Your task to perform on an android device: change the clock style Image 0: 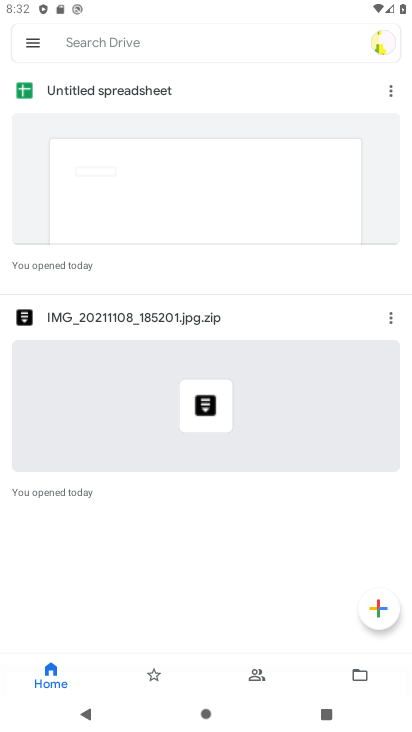
Step 0: press home button
Your task to perform on an android device: change the clock style Image 1: 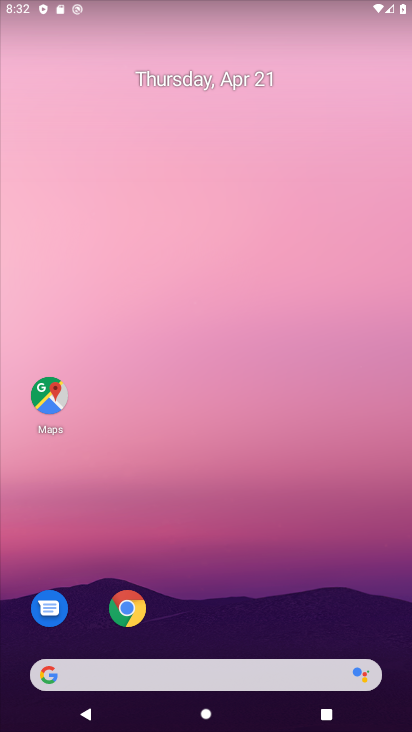
Step 1: drag from (291, 579) to (73, 0)
Your task to perform on an android device: change the clock style Image 2: 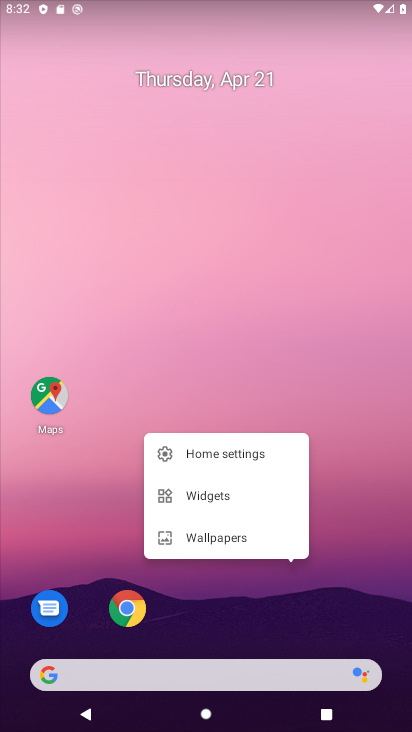
Step 2: click (338, 496)
Your task to perform on an android device: change the clock style Image 3: 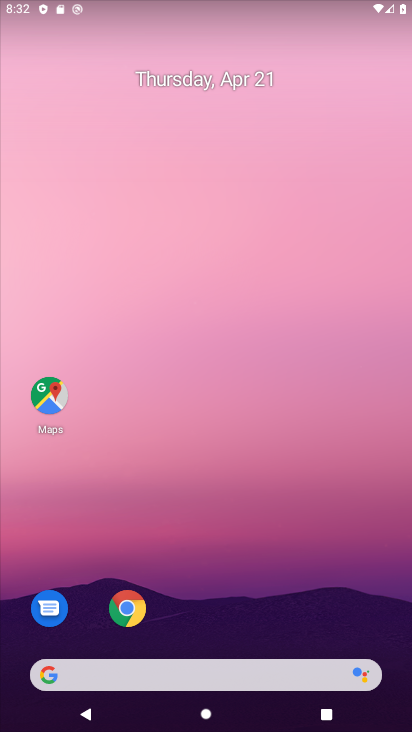
Step 3: drag from (338, 496) to (224, 2)
Your task to perform on an android device: change the clock style Image 4: 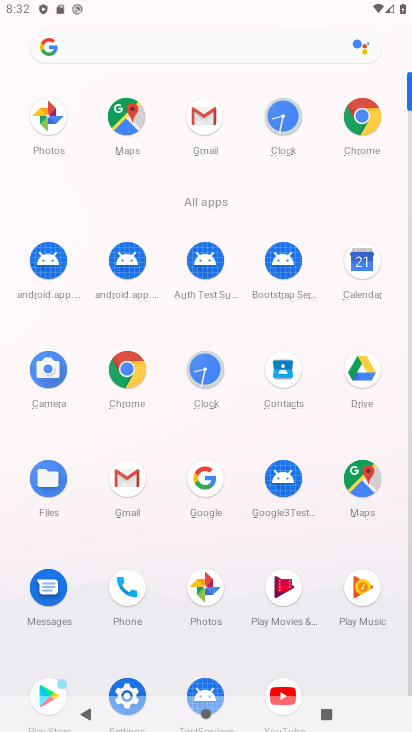
Step 4: click (283, 119)
Your task to perform on an android device: change the clock style Image 5: 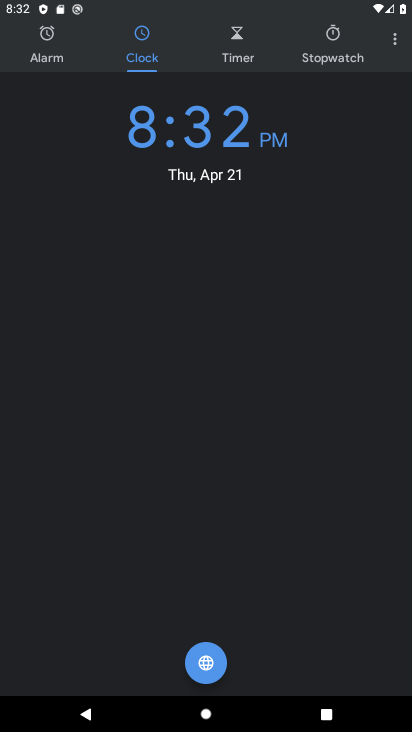
Step 5: click (397, 39)
Your task to perform on an android device: change the clock style Image 6: 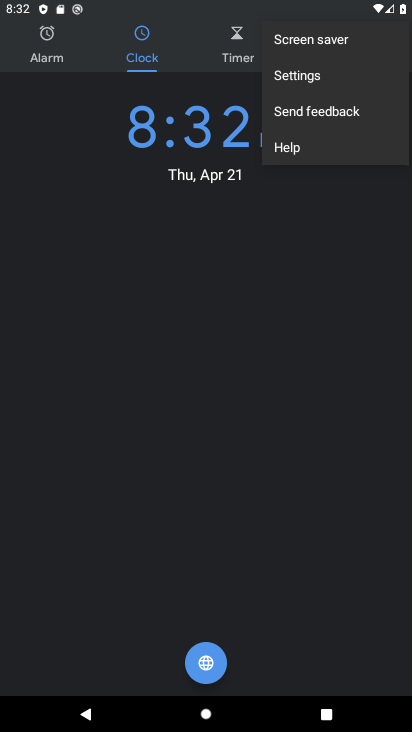
Step 6: click (343, 81)
Your task to perform on an android device: change the clock style Image 7: 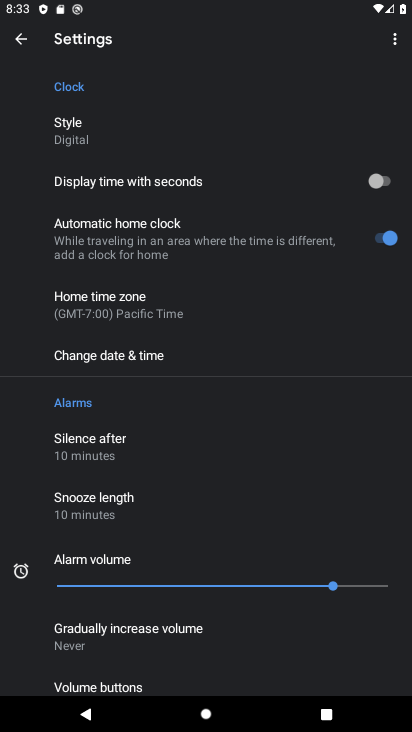
Step 7: click (192, 135)
Your task to perform on an android device: change the clock style Image 8: 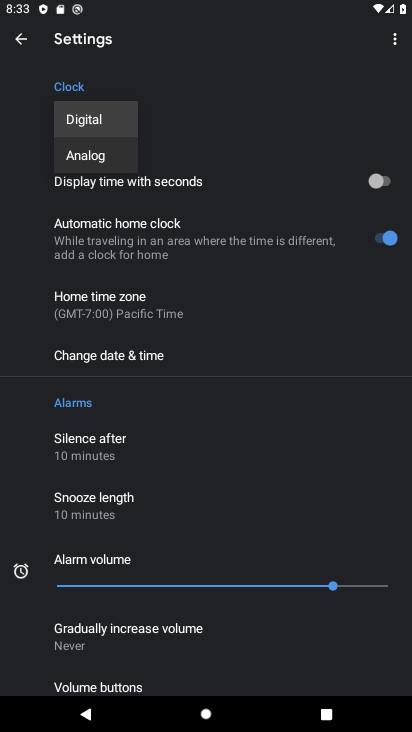
Step 8: click (116, 148)
Your task to perform on an android device: change the clock style Image 9: 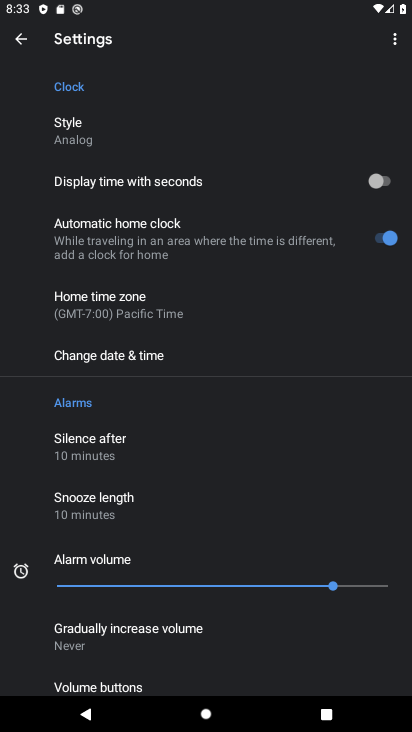
Step 9: task complete